Your task to perform on an android device: allow notifications from all sites in the chrome app Image 0: 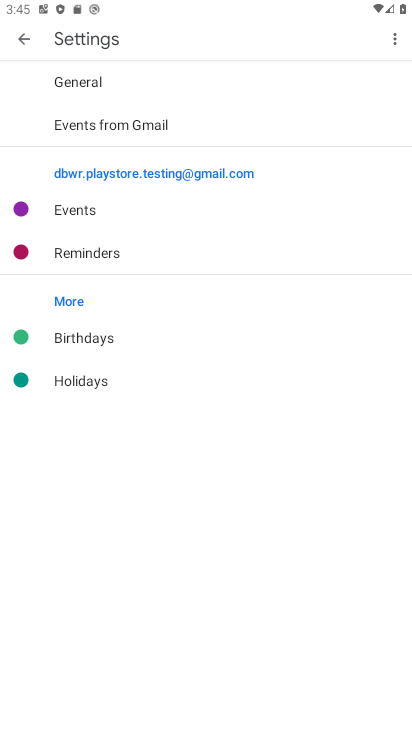
Step 0: press home button
Your task to perform on an android device: allow notifications from all sites in the chrome app Image 1: 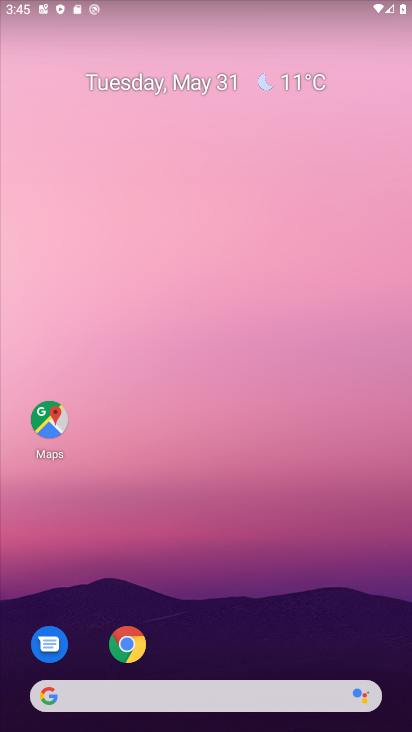
Step 1: click (127, 640)
Your task to perform on an android device: allow notifications from all sites in the chrome app Image 2: 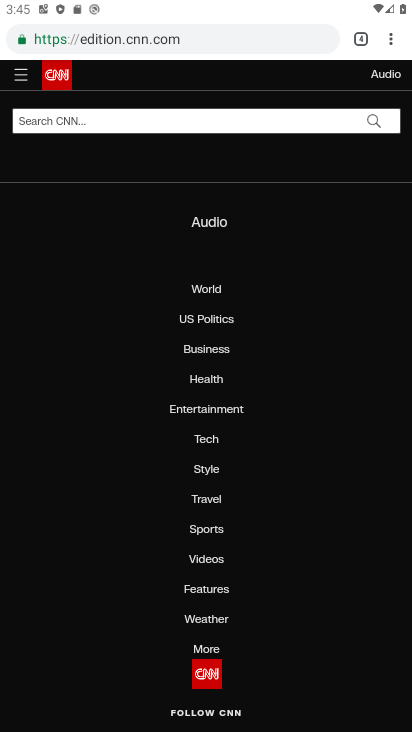
Step 2: click (398, 31)
Your task to perform on an android device: allow notifications from all sites in the chrome app Image 3: 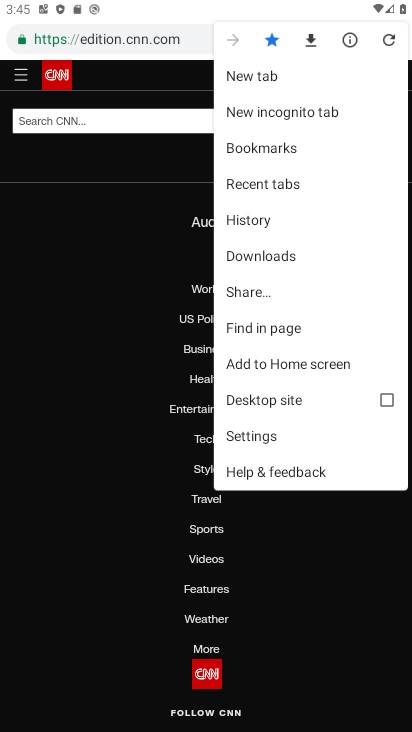
Step 3: click (259, 431)
Your task to perform on an android device: allow notifications from all sites in the chrome app Image 4: 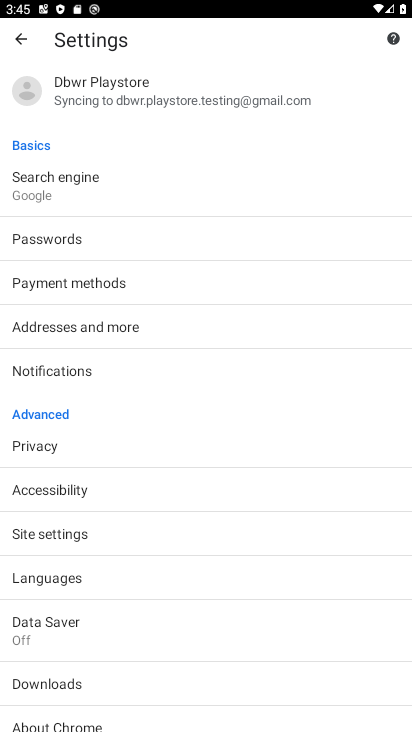
Step 4: click (80, 368)
Your task to perform on an android device: allow notifications from all sites in the chrome app Image 5: 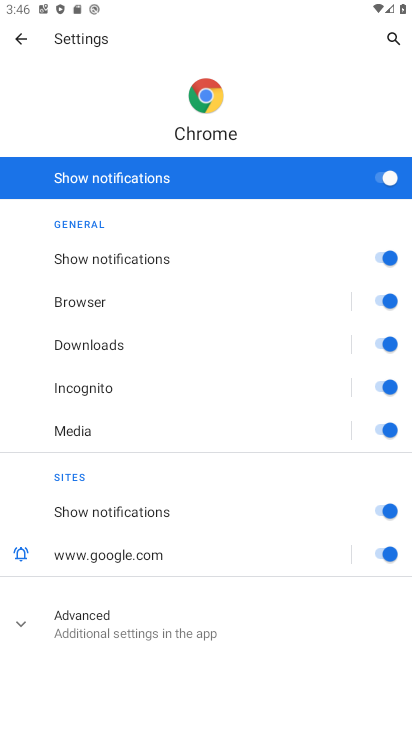
Step 5: task complete